Your task to perform on an android device: turn on sleep mode Image 0: 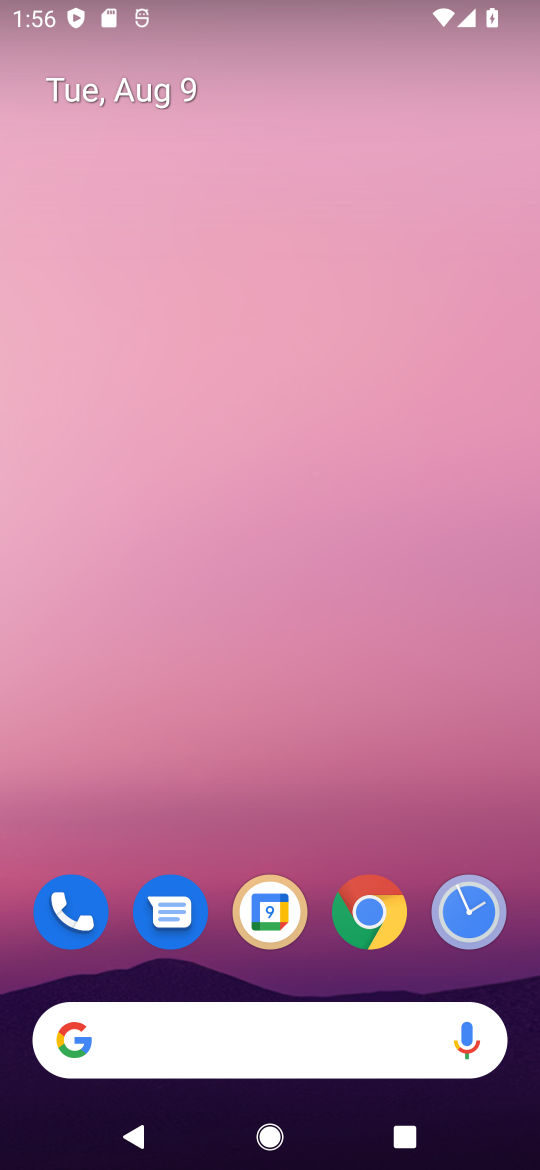
Step 0: drag from (320, 823) to (296, 9)
Your task to perform on an android device: turn on sleep mode Image 1: 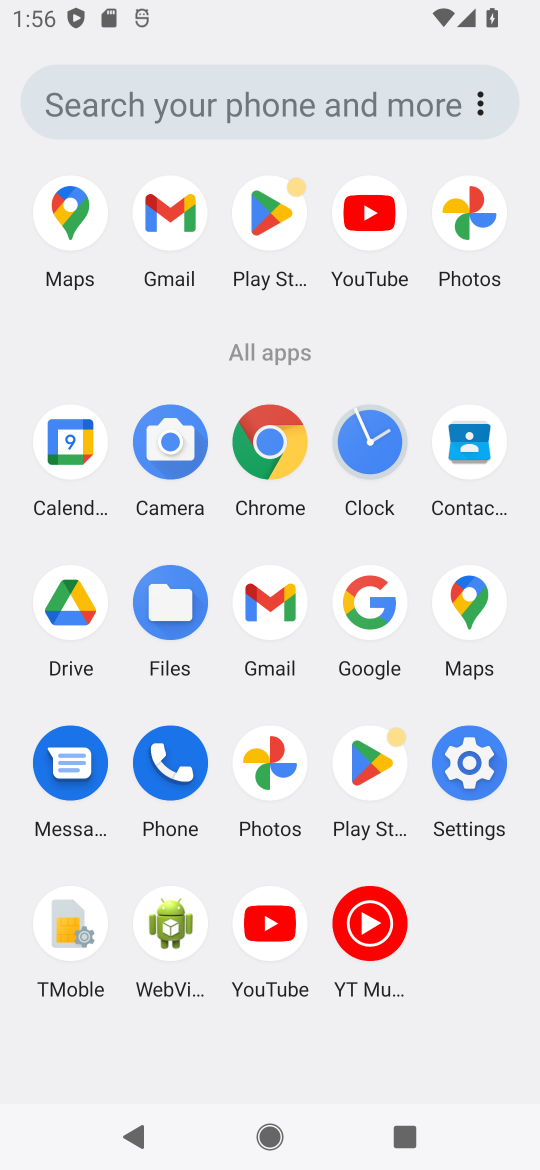
Step 1: click (466, 763)
Your task to perform on an android device: turn on sleep mode Image 2: 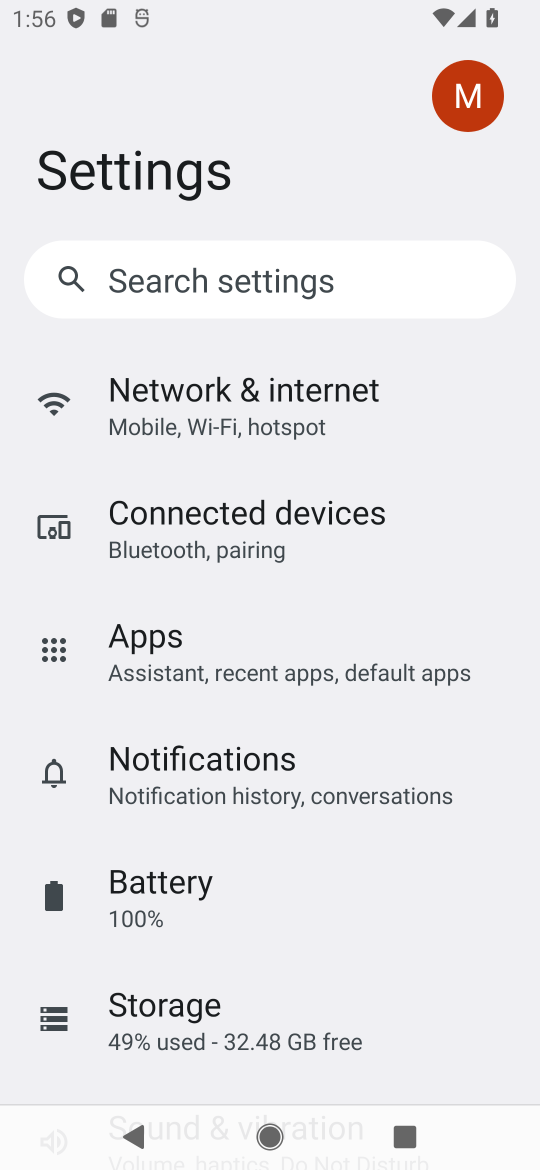
Step 2: drag from (376, 926) to (321, 147)
Your task to perform on an android device: turn on sleep mode Image 3: 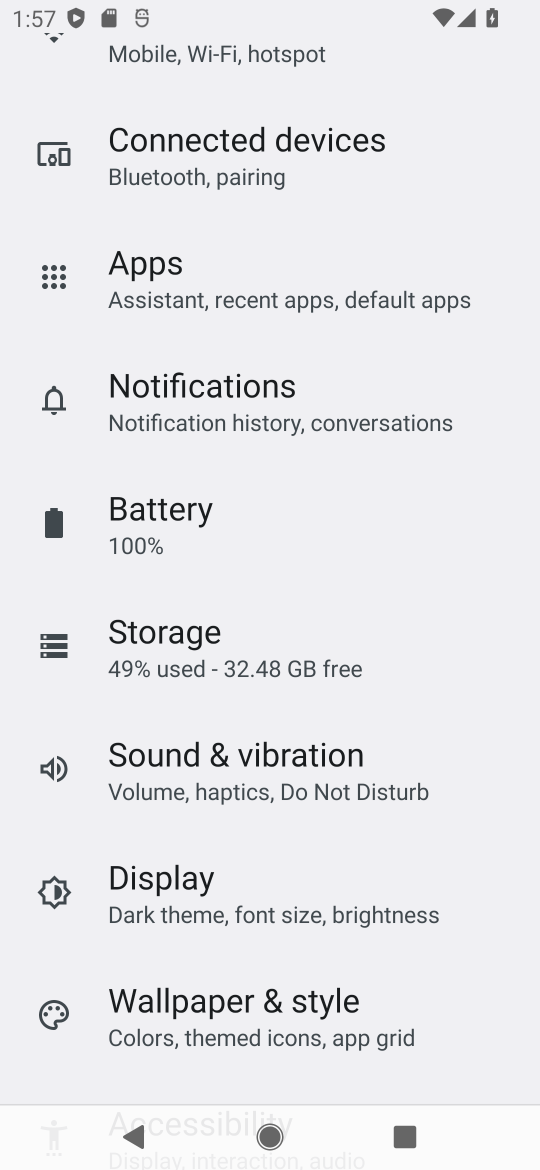
Step 3: click (168, 887)
Your task to perform on an android device: turn on sleep mode Image 4: 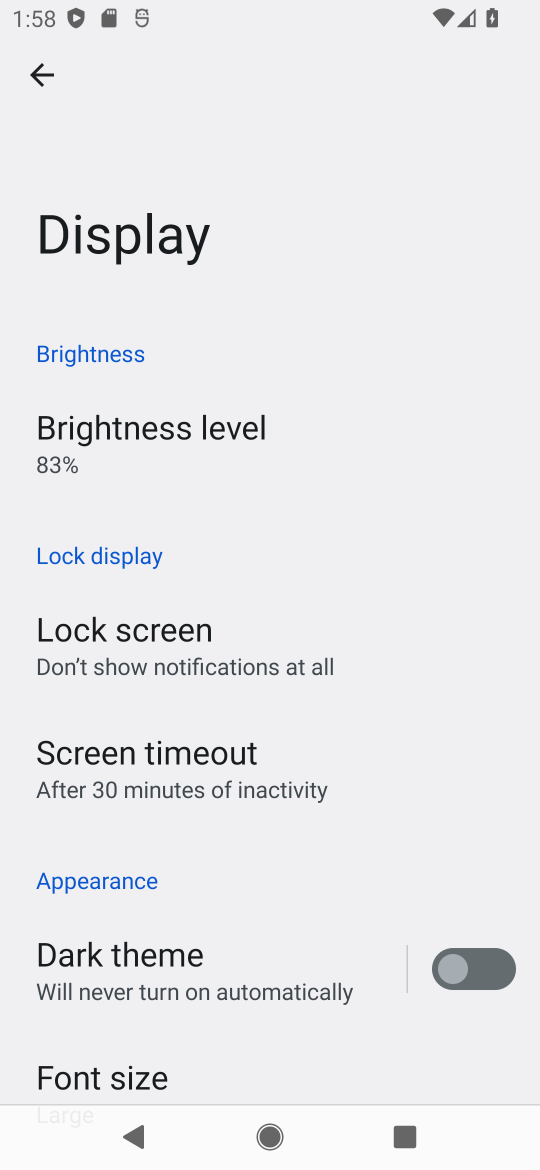
Step 4: task complete